Your task to perform on an android device: Open the Play Movies app and select the watchlist tab. Image 0: 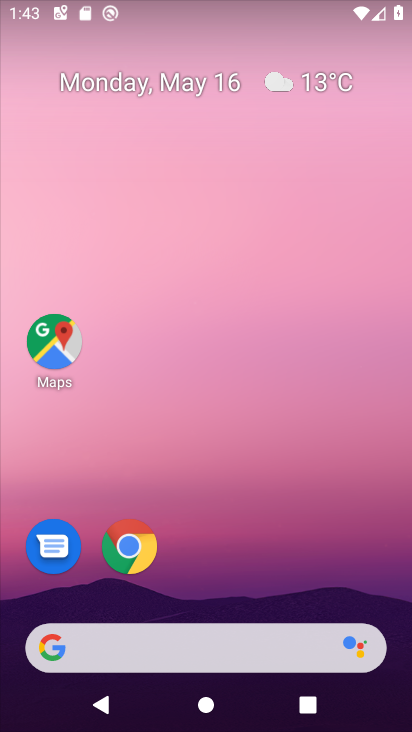
Step 0: drag from (245, 723) to (238, 246)
Your task to perform on an android device: Open the Play Movies app and select the watchlist tab. Image 1: 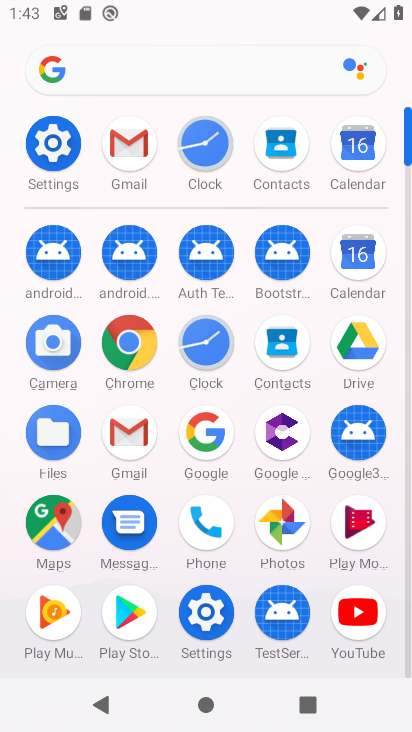
Step 1: click (362, 512)
Your task to perform on an android device: Open the Play Movies app and select the watchlist tab. Image 2: 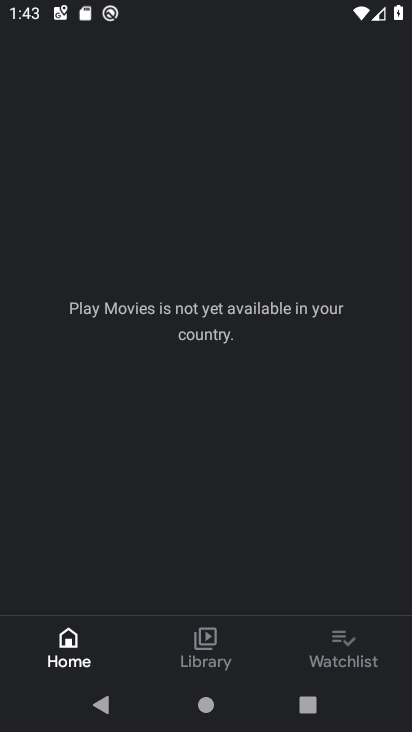
Step 2: click (351, 644)
Your task to perform on an android device: Open the Play Movies app and select the watchlist tab. Image 3: 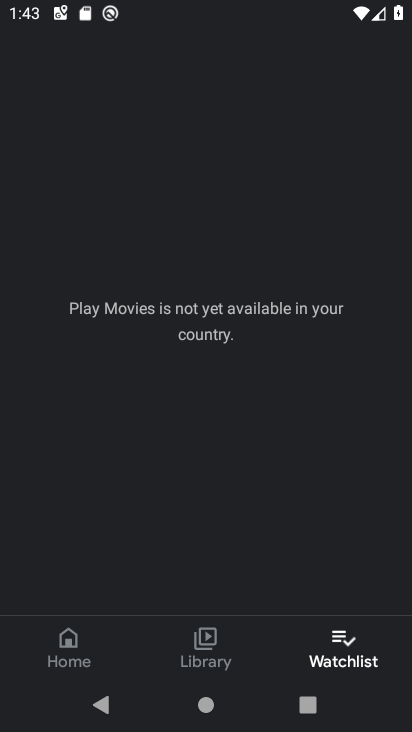
Step 3: task complete